Your task to perform on an android device: stop showing notifications on the lock screen Image 0: 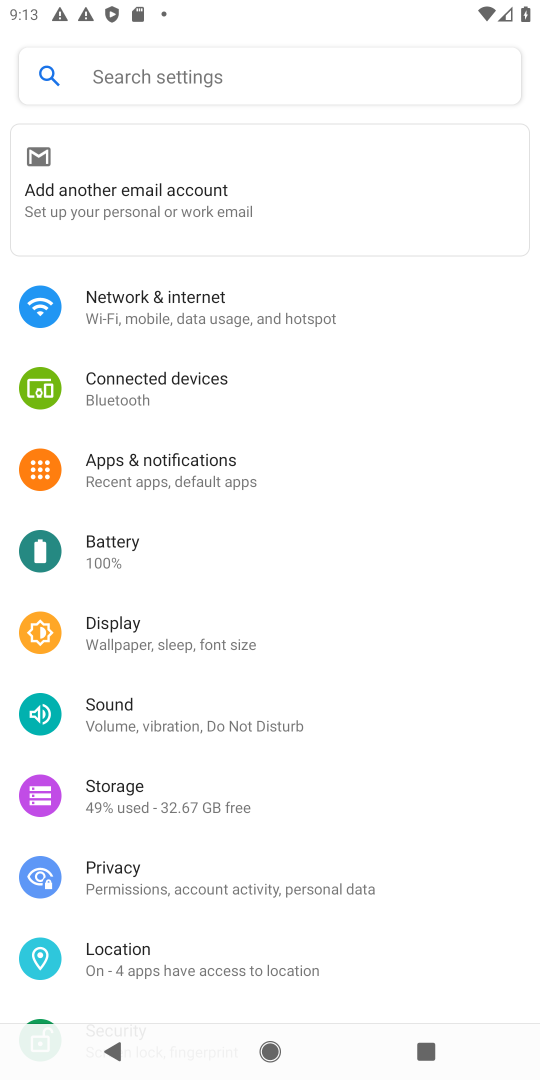
Step 0: press home button
Your task to perform on an android device: stop showing notifications on the lock screen Image 1: 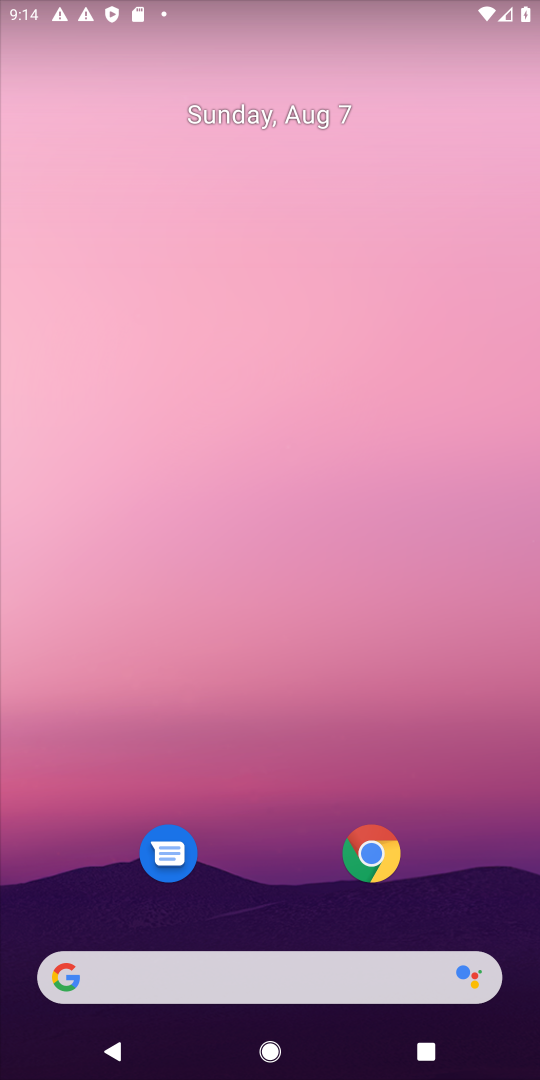
Step 1: drag from (461, 891) to (464, 283)
Your task to perform on an android device: stop showing notifications on the lock screen Image 2: 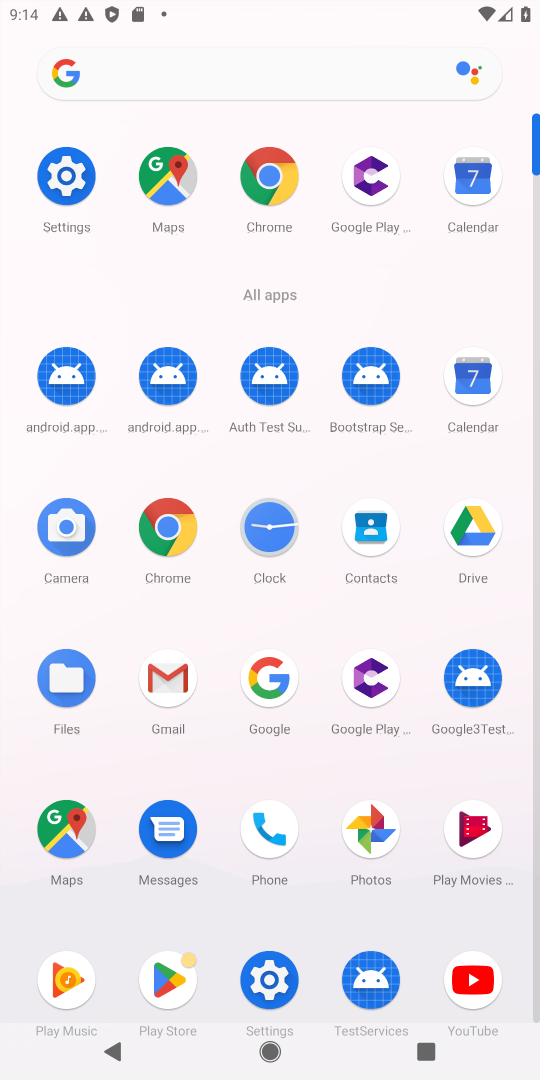
Step 2: click (262, 981)
Your task to perform on an android device: stop showing notifications on the lock screen Image 3: 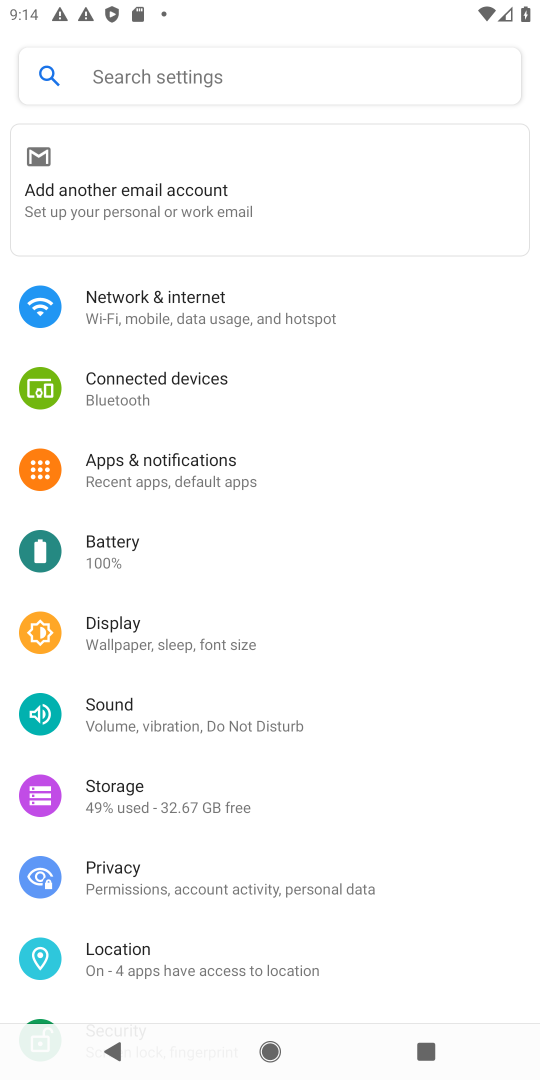
Step 3: drag from (453, 619) to (459, 513)
Your task to perform on an android device: stop showing notifications on the lock screen Image 4: 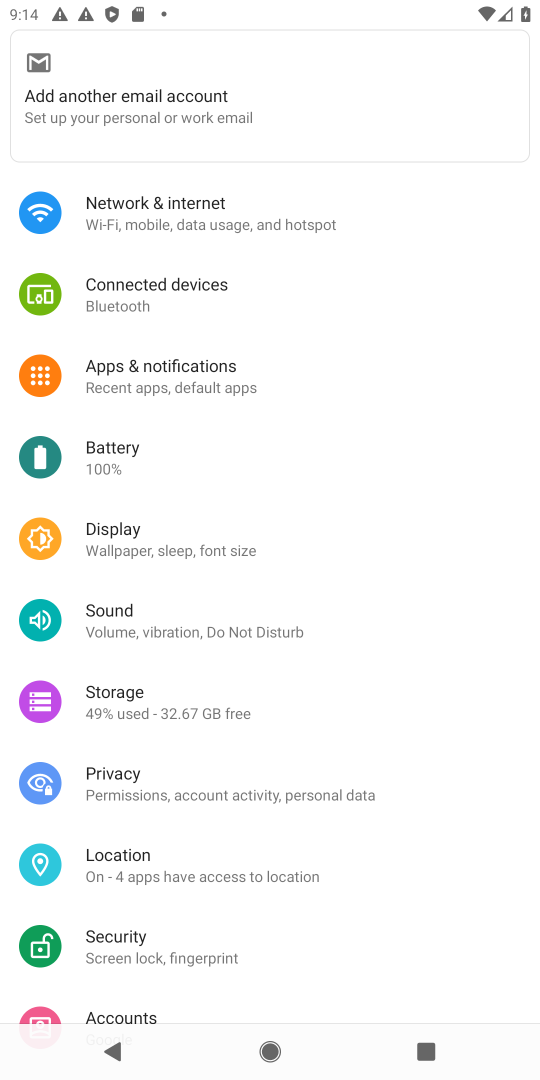
Step 4: drag from (441, 660) to (456, 566)
Your task to perform on an android device: stop showing notifications on the lock screen Image 5: 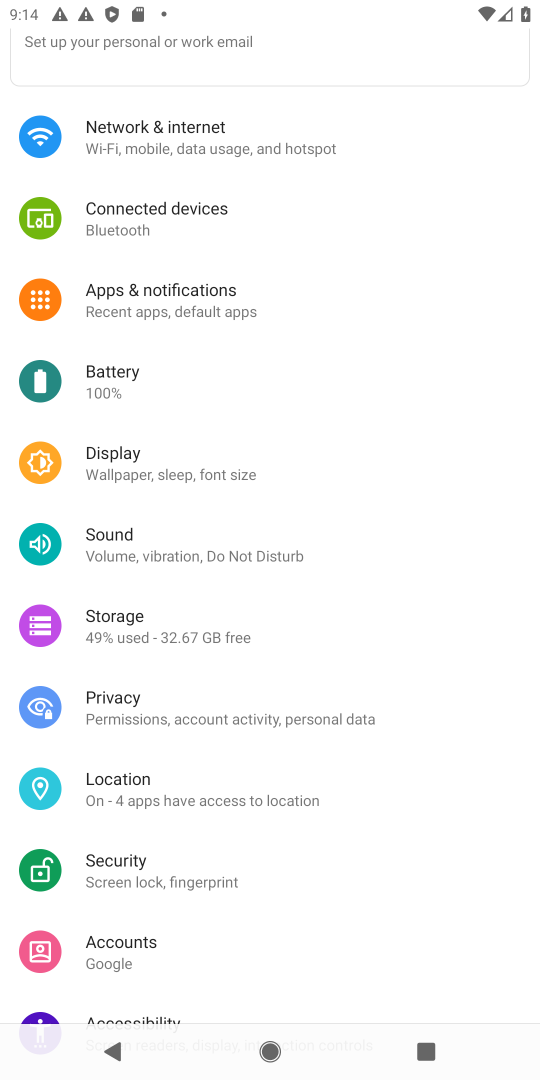
Step 5: click (504, 531)
Your task to perform on an android device: stop showing notifications on the lock screen Image 6: 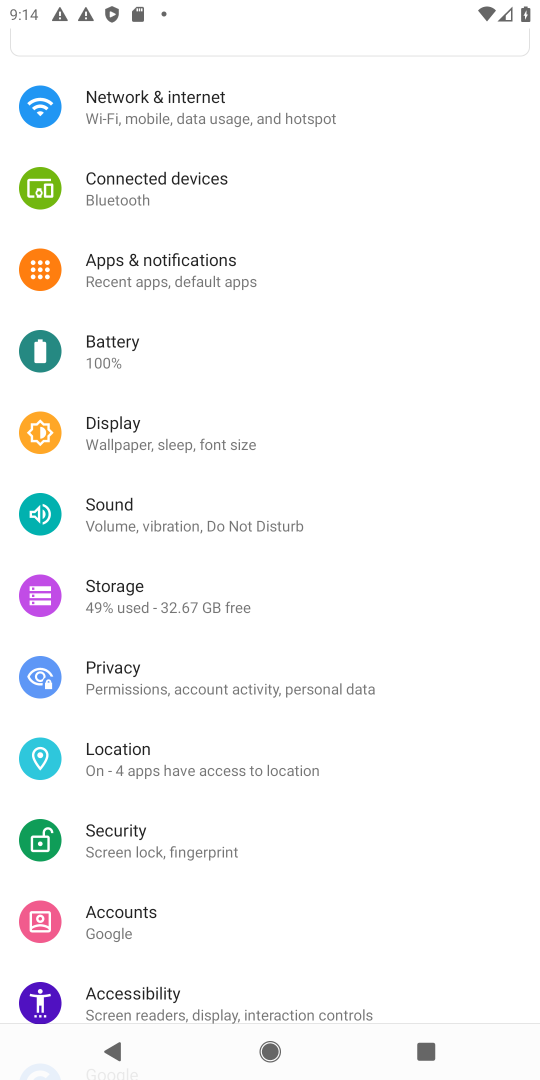
Step 6: drag from (484, 667) to (489, 393)
Your task to perform on an android device: stop showing notifications on the lock screen Image 7: 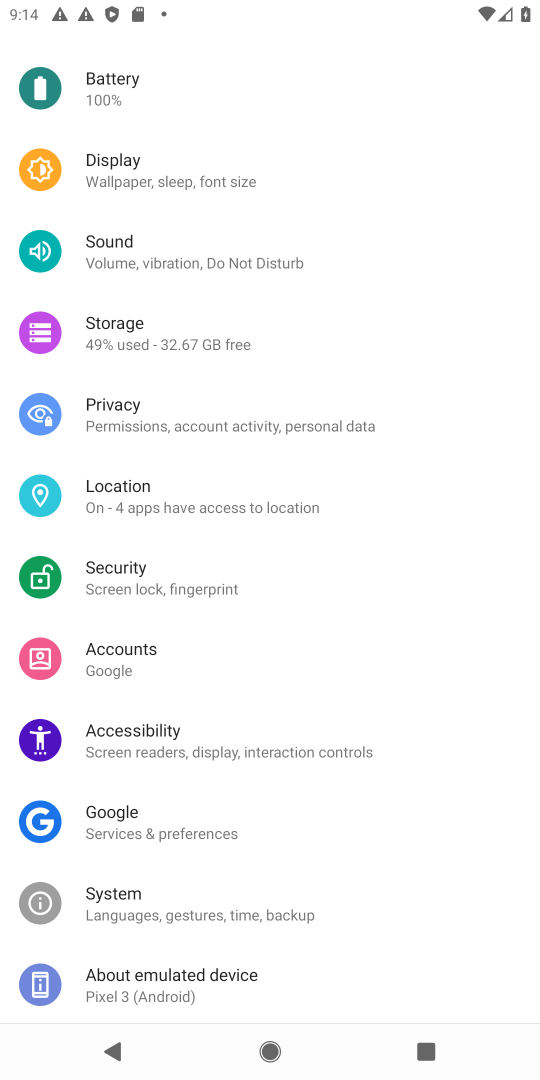
Step 7: drag from (454, 619) to (469, 427)
Your task to perform on an android device: stop showing notifications on the lock screen Image 8: 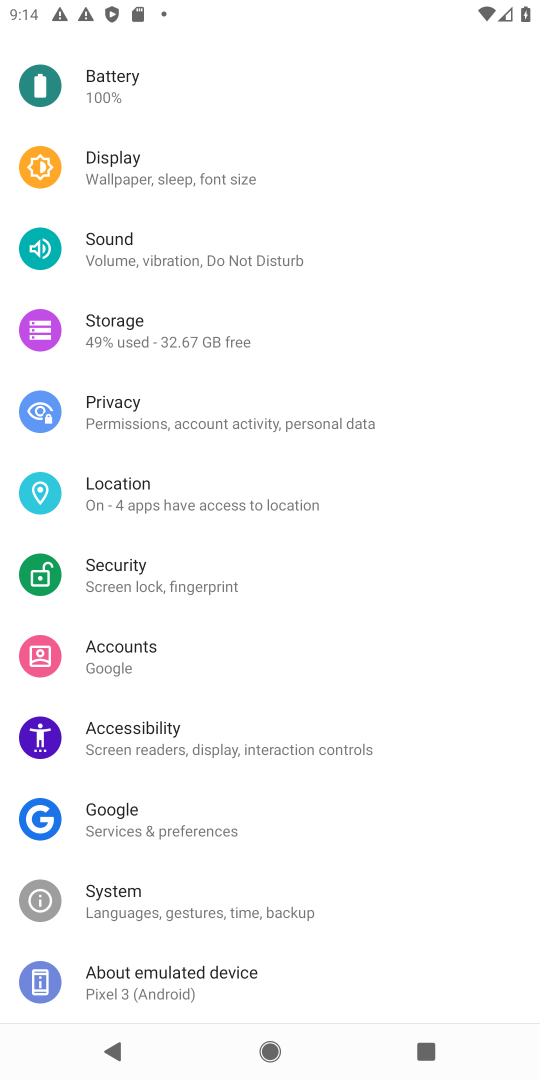
Step 8: drag from (443, 193) to (457, 387)
Your task to perform on an android device: stop showing notifications on the lock screen Image 9: 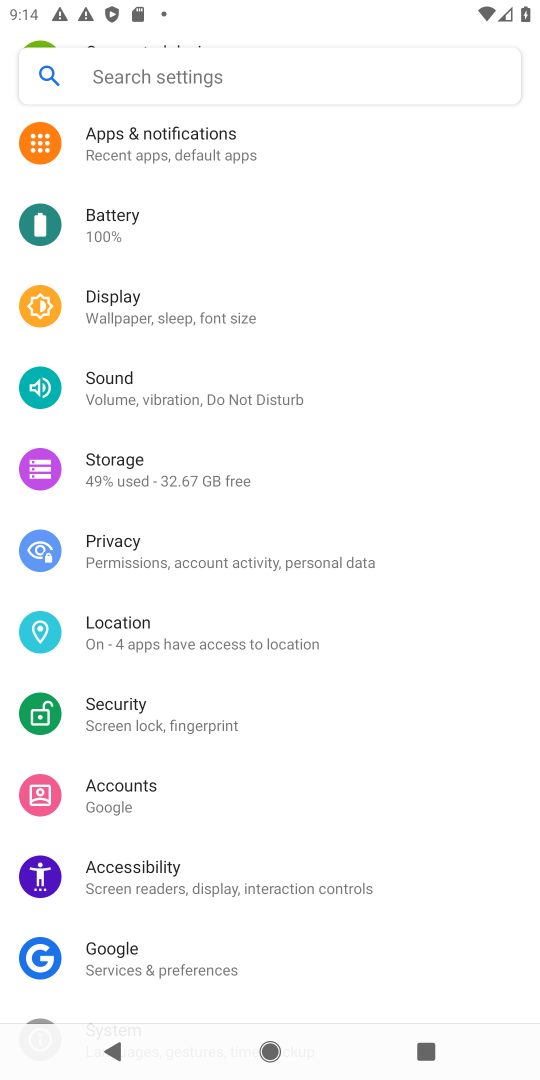
Step 9: drag from (433, 275) to (443, 461)
Your task to perform on an android device: stop showing notifications on the lock screen Image 10: 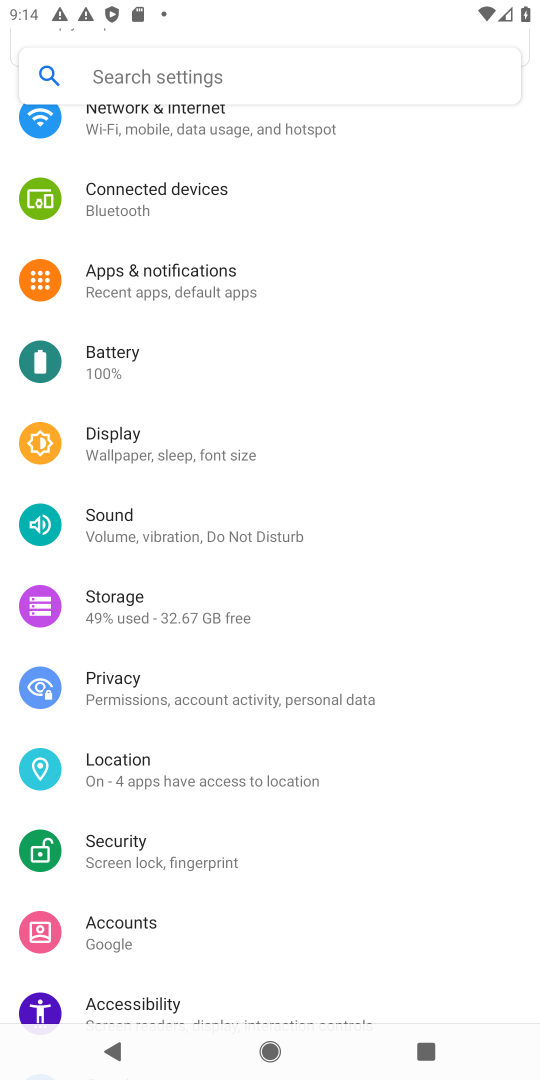
Step 10: click (227, 278)
Your task to perform on an android device: stop showing notifications on the lock screen Image 11: 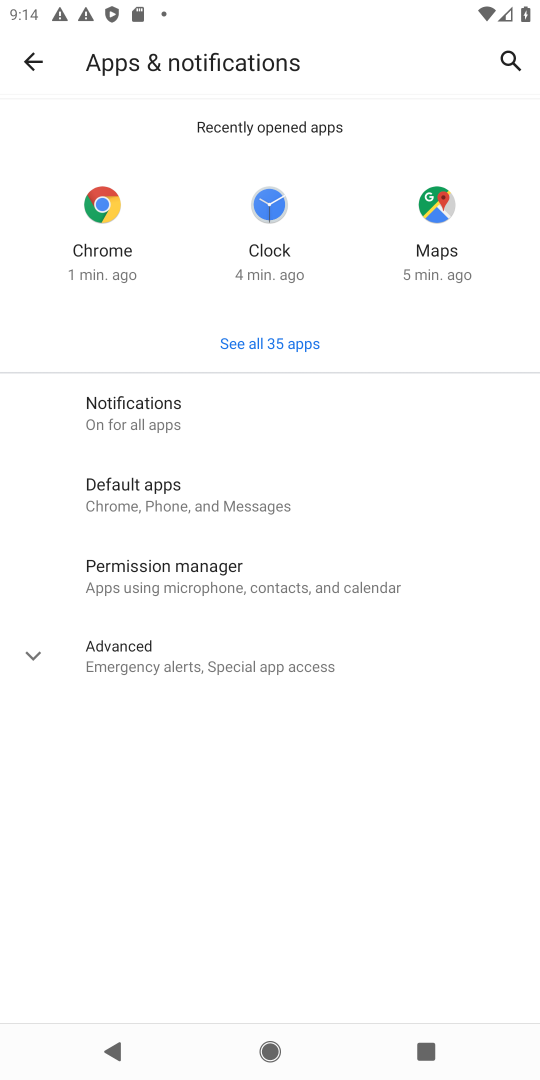
Step 11: click (183, 416)
Your task to perform on an android device: stop showing notifications on the lock screen Image 12: 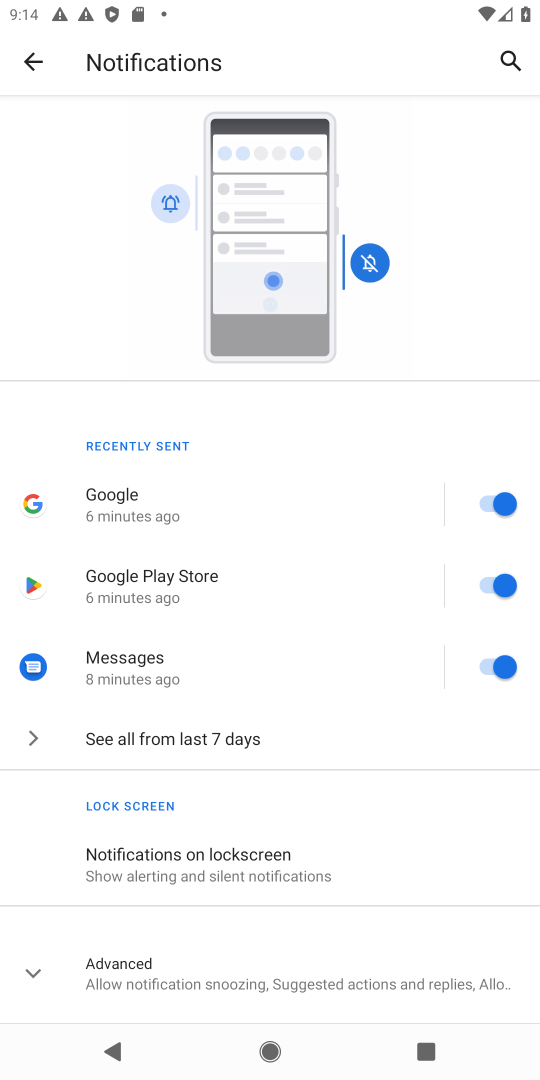
Step 12: click (322, 874)
Your task to perform on an android device: stop showing notifications on the lock screen Image 13: 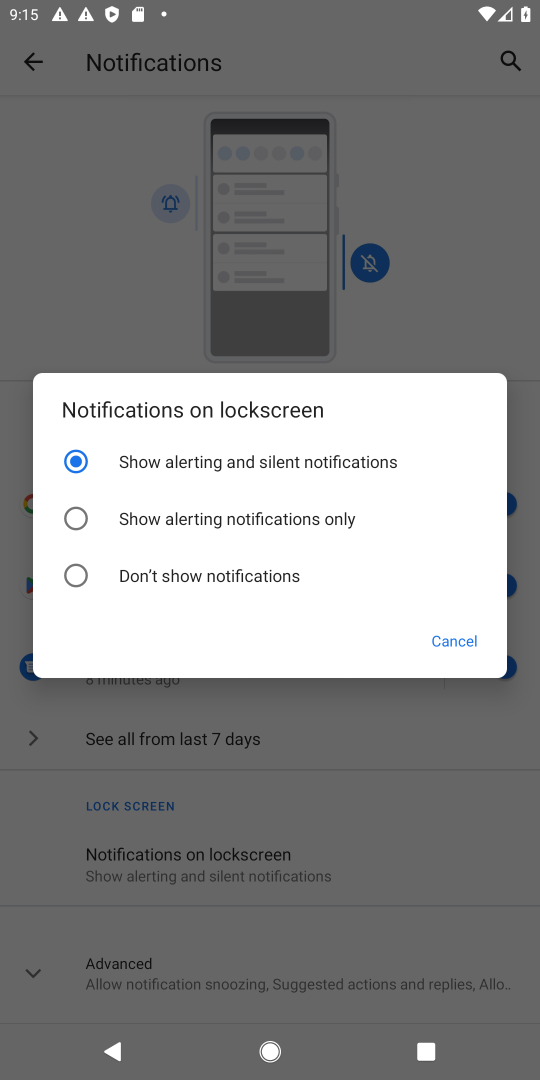
Step 13: click (191, 573)
Your task to perform on an android device: stop showing notifications on the lock screen Image 14: 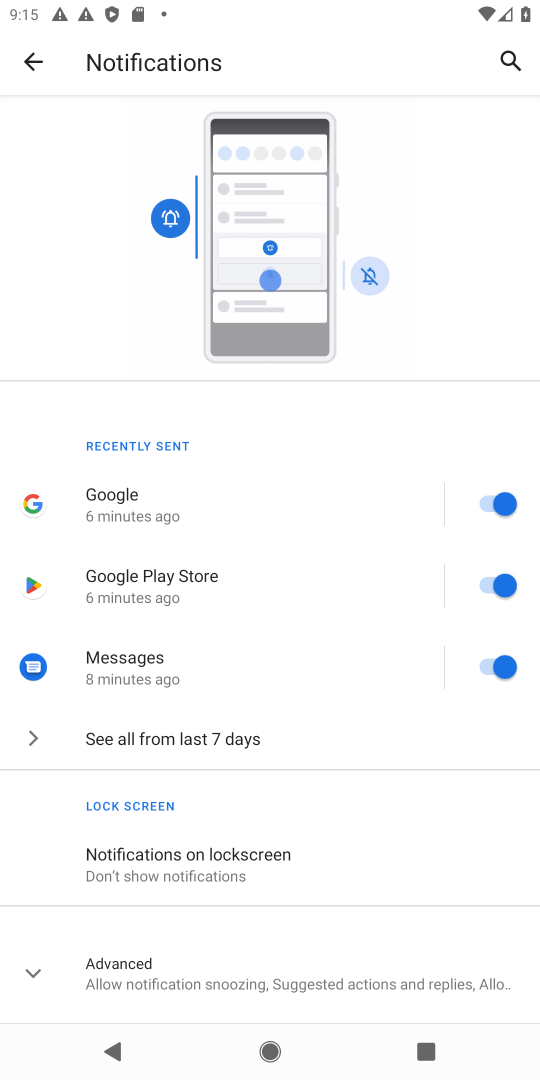
Step 14: task complete